Your task to perform on an android device: Open Google Chrome and open the bookmarks view Image 0: 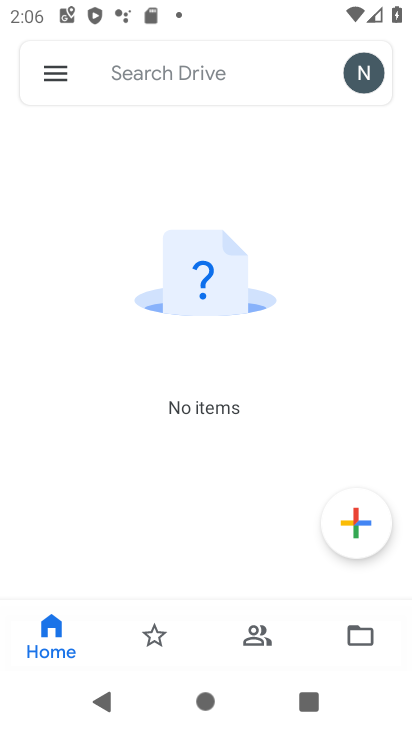
Step 0: press home button
Your task to perform on an android device: Open Google Chrome and open the bookmarks view Image 1: 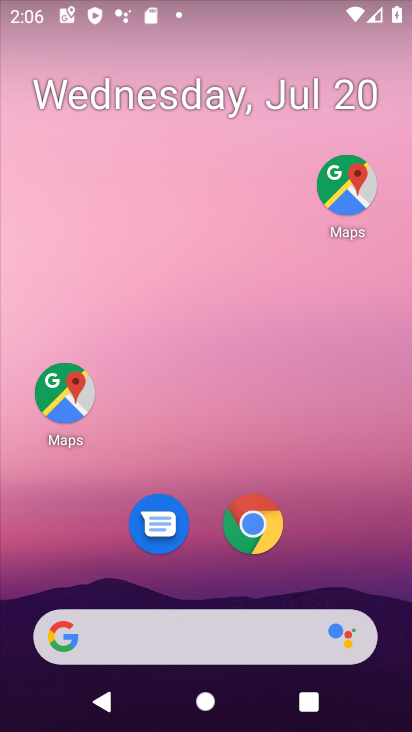
Step 1: click (264, 521)
Your task to perform on an android device: Open Google Chrome and open the bookmarks view Image 2: 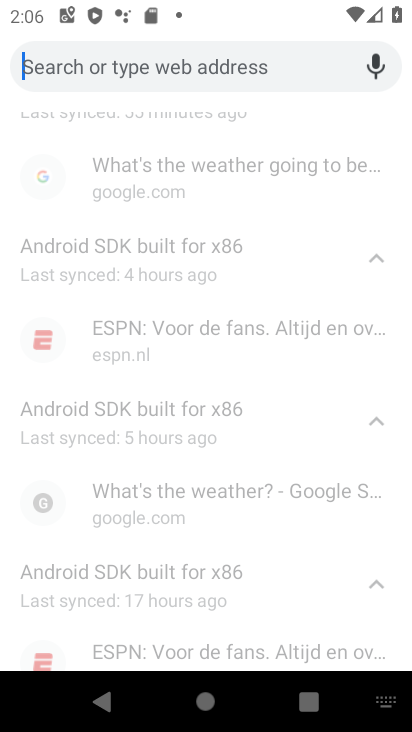
Step 2: press home button
Your task to perform on an android device: Open Google Chrome and open the bookmarks view Image 3: 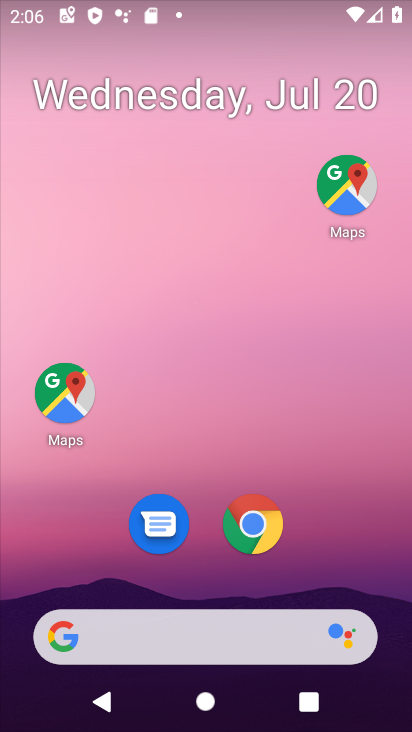
Step 3: click (269, 524)
Your task to perform on an android device: Open Google Chrome and open the bookmarks view Image 4: 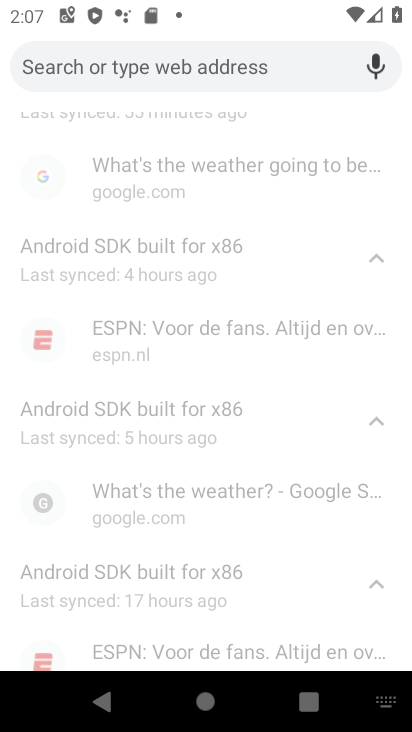
Step 4: press back button
Your task to perform on an android device: Open Google Chrome and open the bookmarks view Image 5: 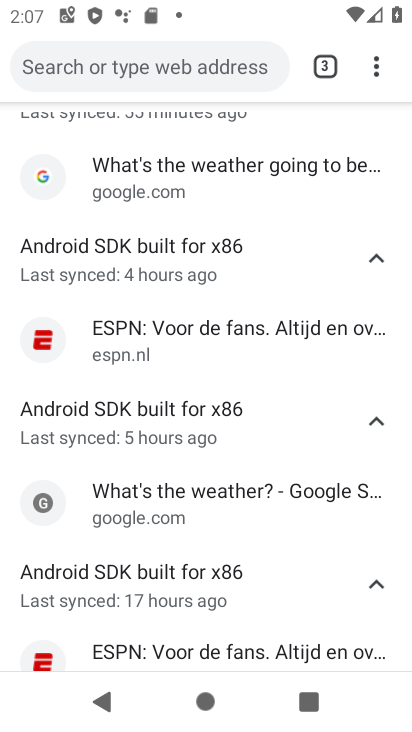
Step 5: click (377, 70)
Your task to perform on an android device: Open Google Chrome and open the bookmarks view Image 6: 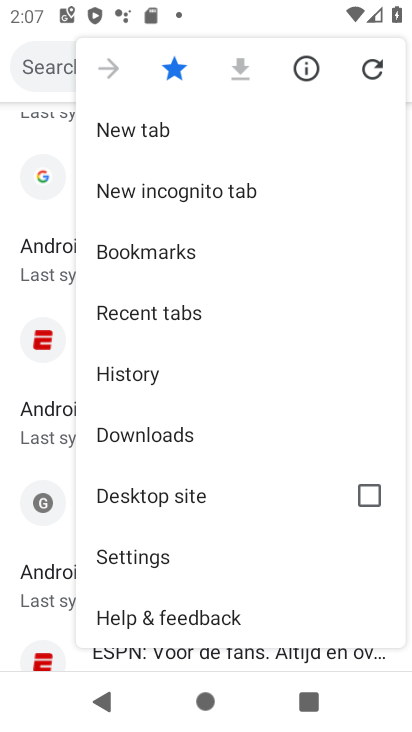
Step 6: click (179, 251)
Your task to perform on an android device: Open Google Chrome and open the bookmarks view Image 7: 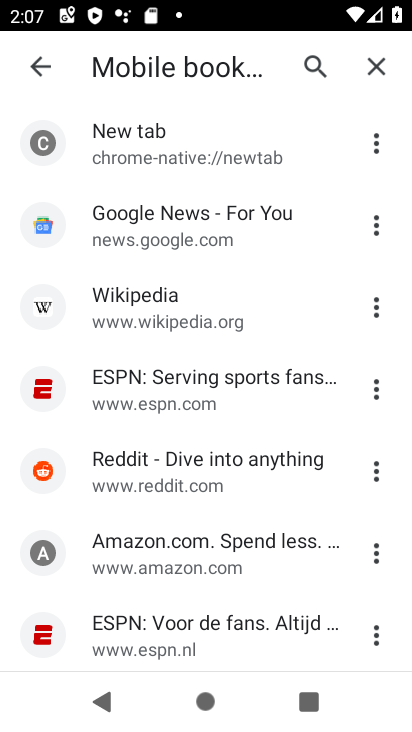
Step 7: task complete